Your task to perform on an android device: open app "Cash App" (install if not already installed) Image 0: 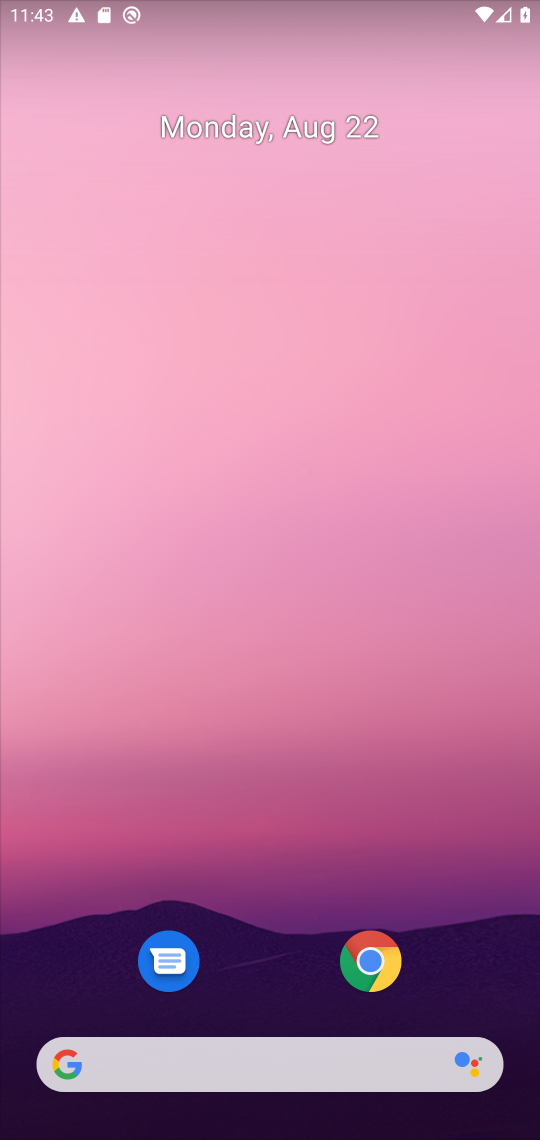
Step 0: drag from (300, 1024) to (388, 42)
Your task to perform on an android device: open app "Cash App" (install if not already installed) Image 1: 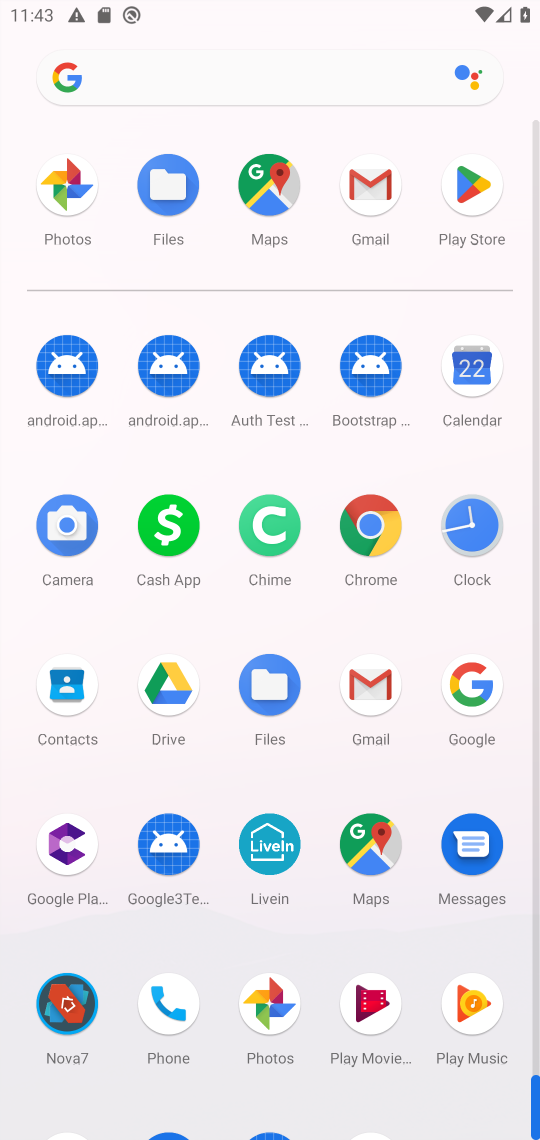
Step 1: click (469, 209)
Your task to perform on an android device: open app "Cash App" (install if not already installed) Image 2: 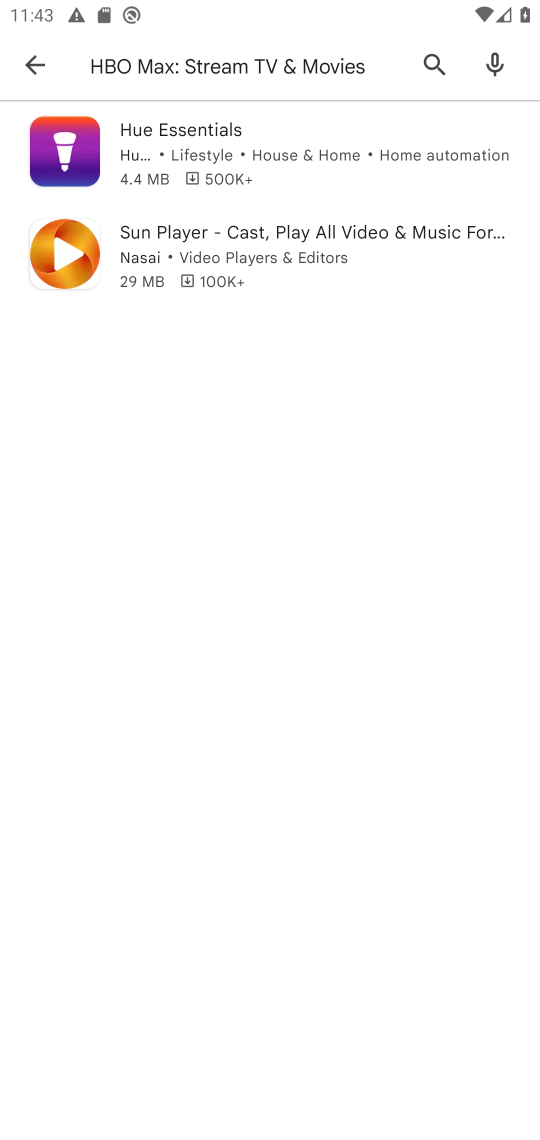
Step 2: click (433, 79)
Your task to perform on an android device: open app "Cash App" (install if not already installed) Image 3: 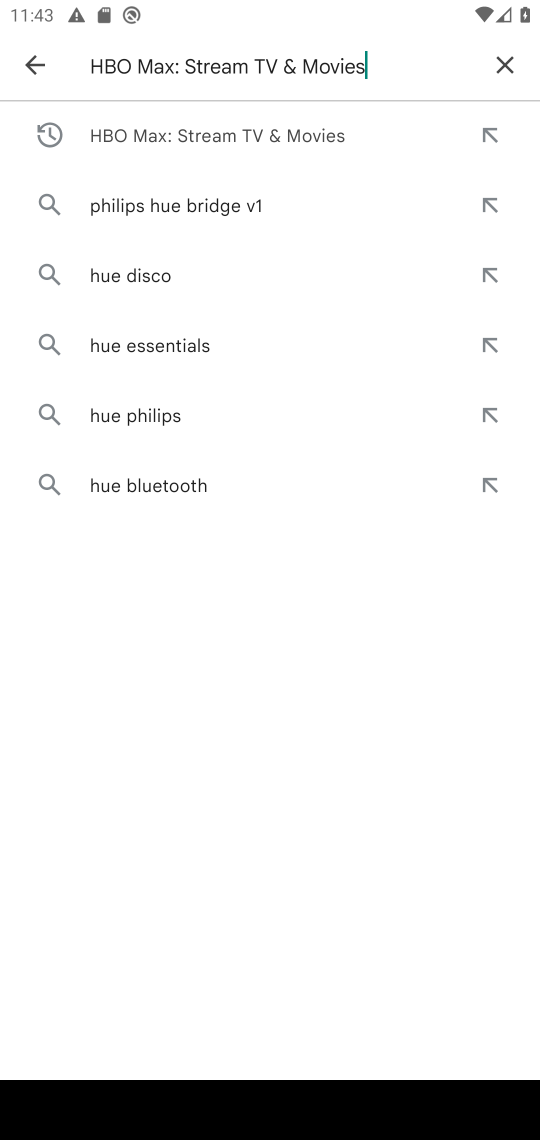
Step 3: click (513, 59)
Your task to perform on an android device: open app "Cash App" (install if not already installed) Image 4: 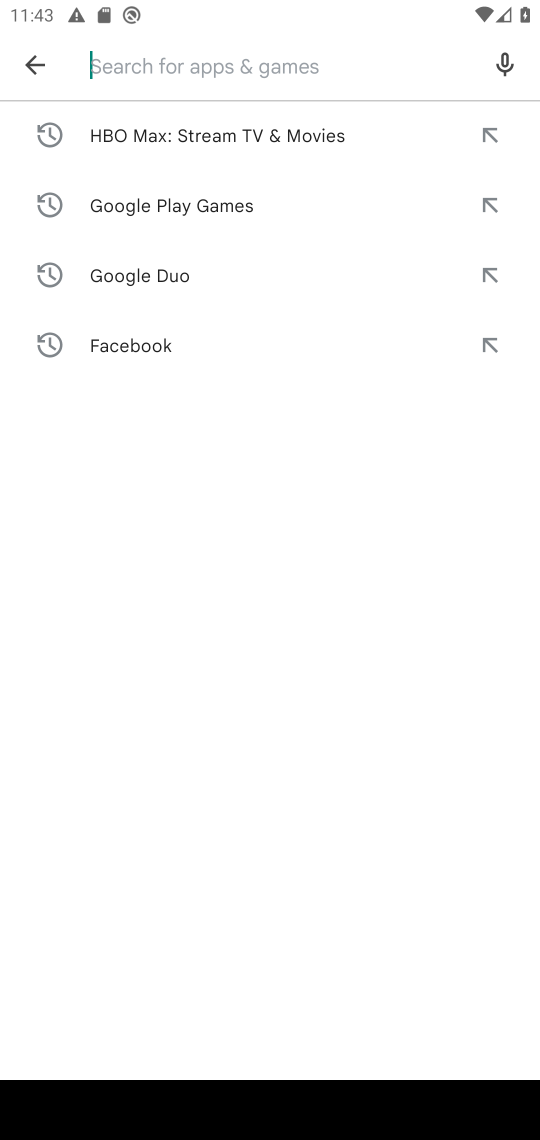
Step 4: type "cash app"
Your task to perform on an android device: open app "Cash App" (install if not already installed) Image 5: 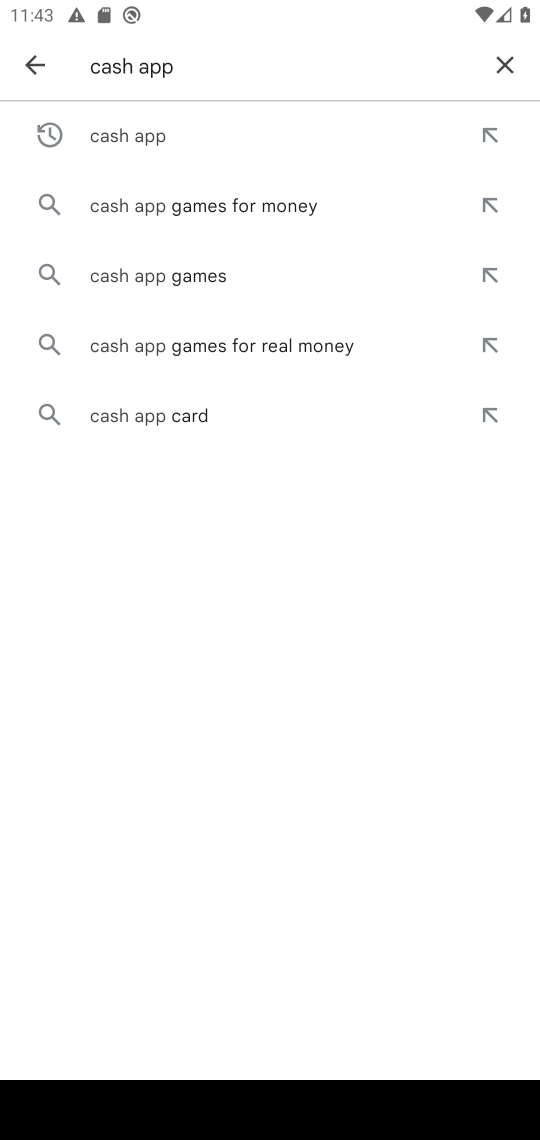
Step 5: click (283, 159)
Your task to perform on an android device: open app "Cash App" (install if not already installed) Image 6: 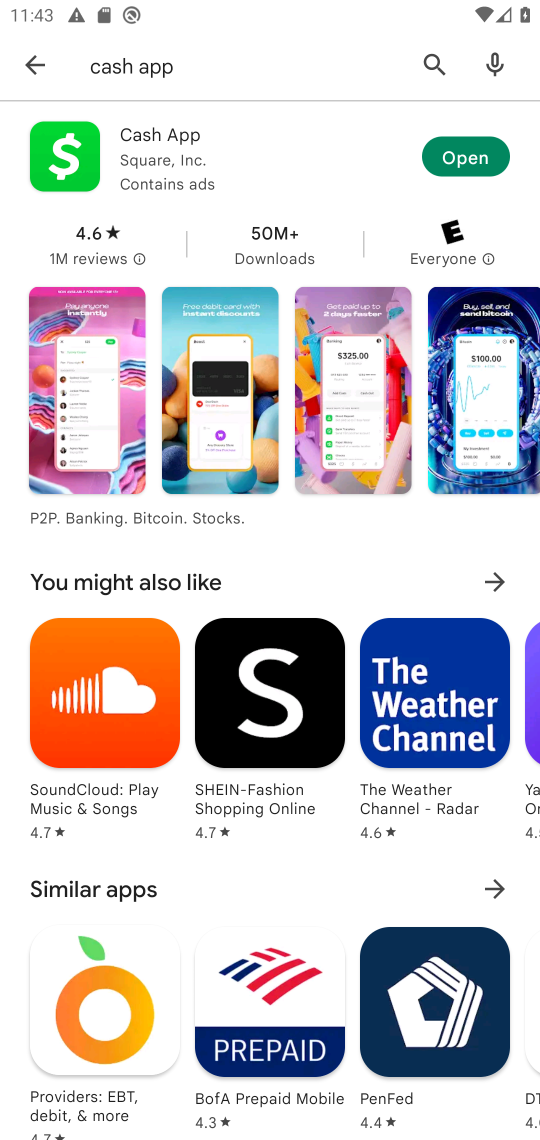
Step 6: click (436, 158)
Your task to perform on an android device: open app "Cash App" (install if not already installed) Image 7: 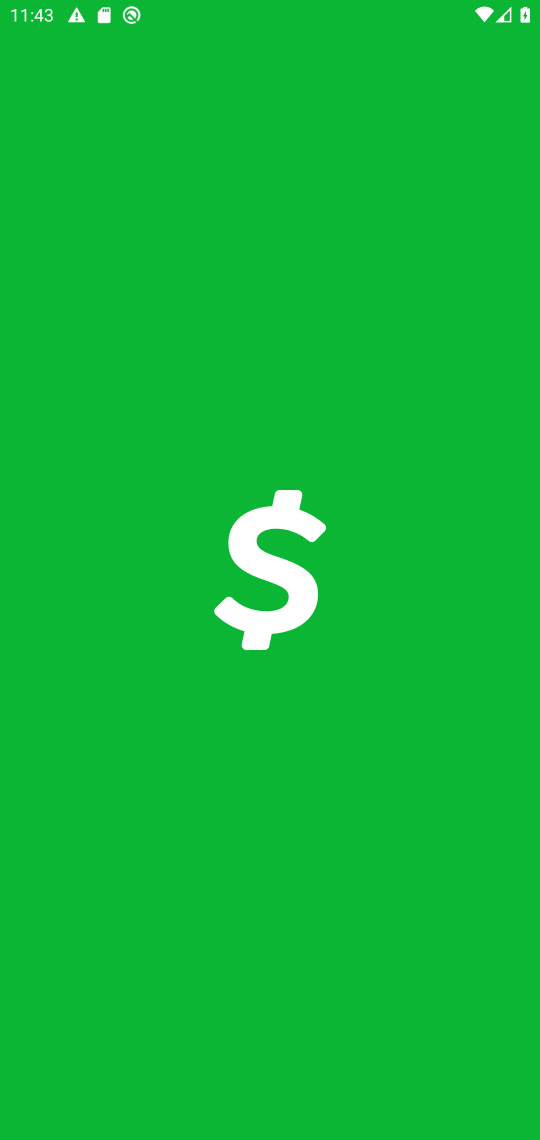
Step 7: task complete